Your task to perform on an android device: delete browsing data in the chrome app Image 0: 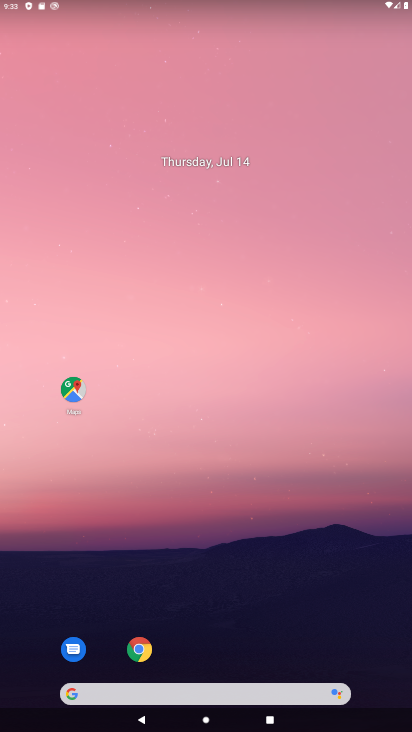
Step 0: click (149, 651)
Your task to perform on an android device: delete browsing data in the chrome app Image 1: 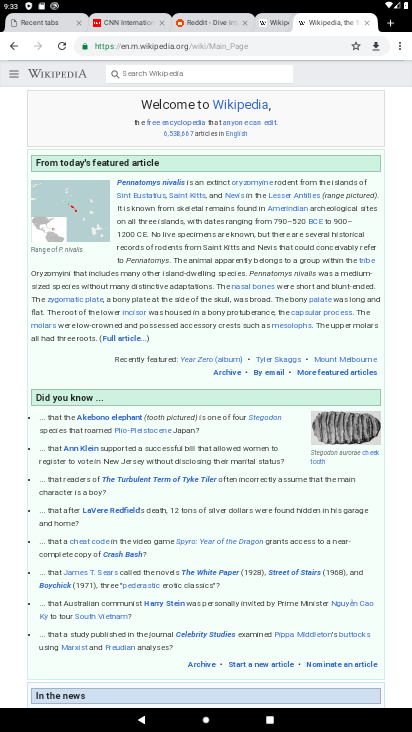
Step 1: click (400, 49)
Your task to perform on an android device: delete browsing data in the chrome app Image 2: 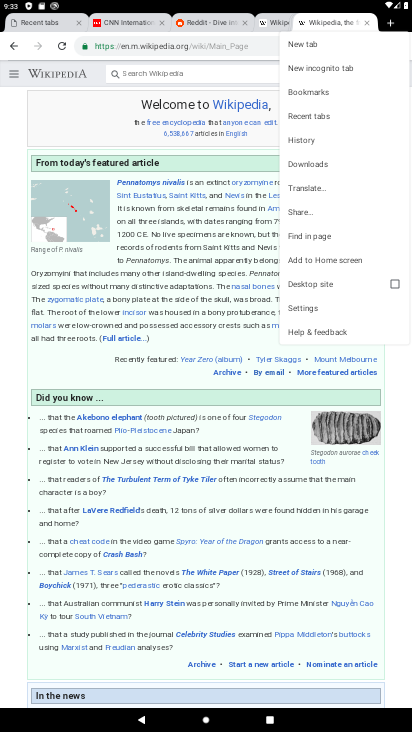
Step 2: click (318, 142)
Your task to perform on an android device: delete browsing data in the chrome app Image 3: 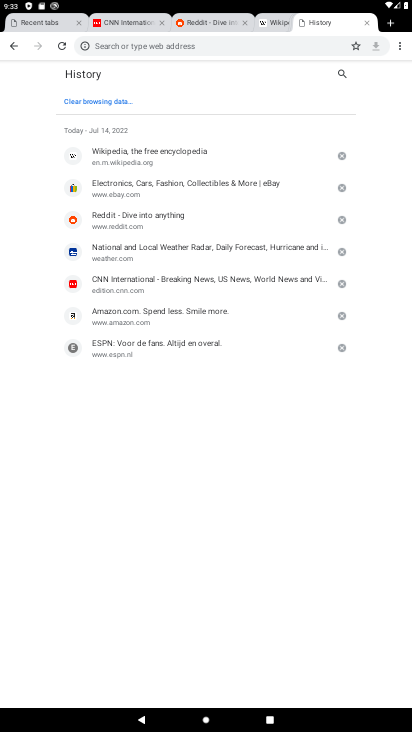
Step 3: click (114, 106)
Your task to perform on an android device: delete browsing data in the chrome app Image 4: 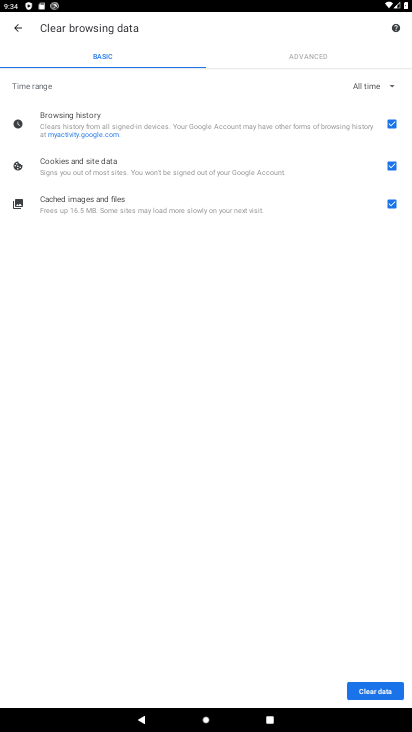
Step 4: click (371, 688)
Your task to perform on an android device: delete browsing data in the chrome app Image 5: 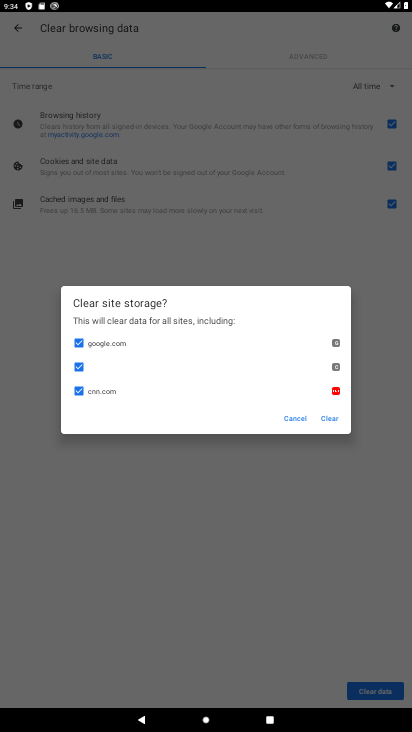
Step 5: click (333, 417)
Your task to perform on an android device: delete browsing data in the chrome app Image 6: 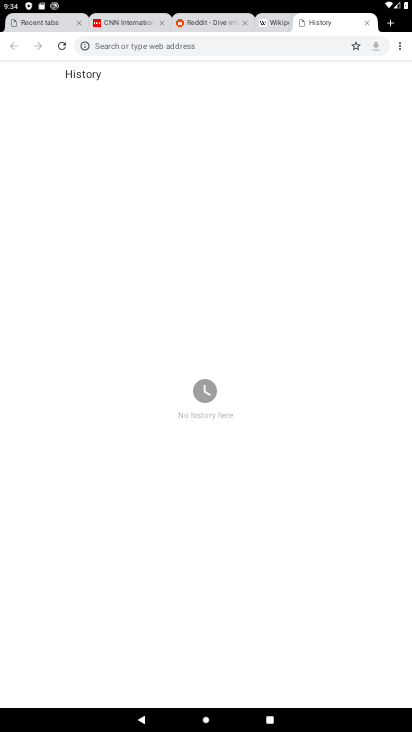
Step 6: task complete